Your task to perform on an android device: delete location history Image 0: 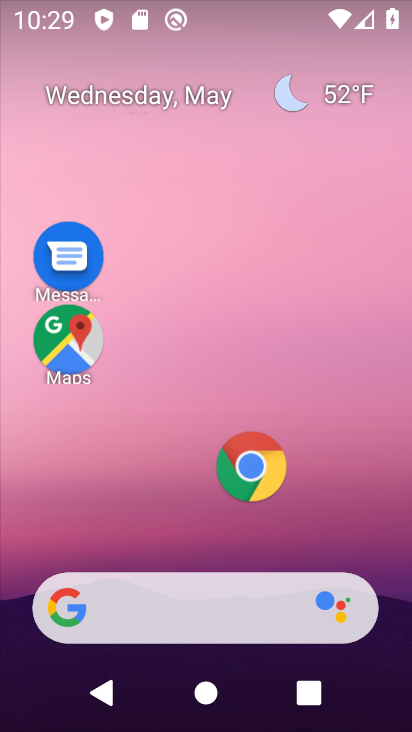
Step 0: drag from (215, 533) to (209, 71)
Your task to perform on an android device: delete location history Image 1: 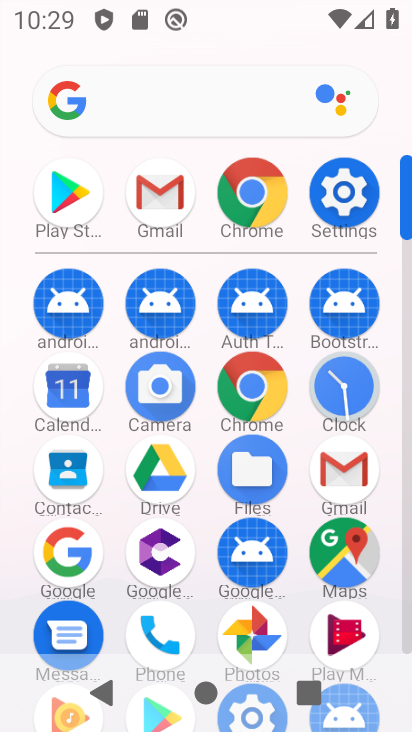
Step 1: click (334, 191)
Your task to perform on an android device: delete location history Image 2: 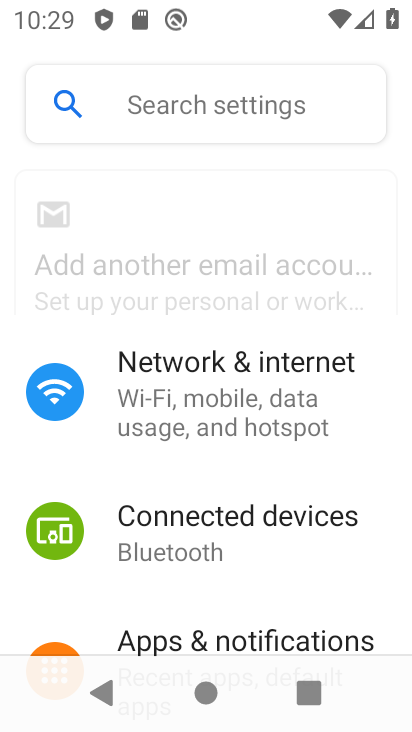
Step 2: drag from (269, 556) to (281, 20)
Your task to perform on an android device: delete location history Image 3: 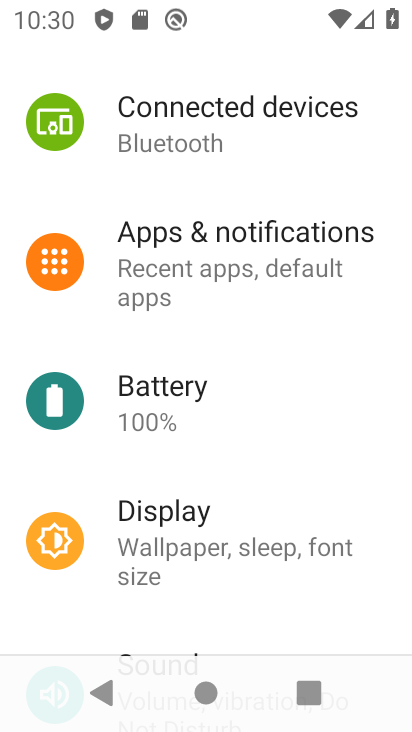
Step 3: drag from (232, 559) to (208, 34)
Your task to perform on an android device: delete location history Image 4: 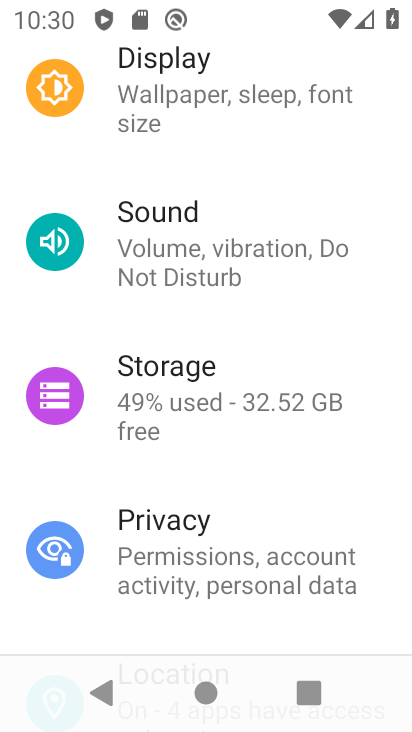
Step 4: drag from (225, 578) to (197, 294)
Your task to perform on an android device: delete location history Image 5: 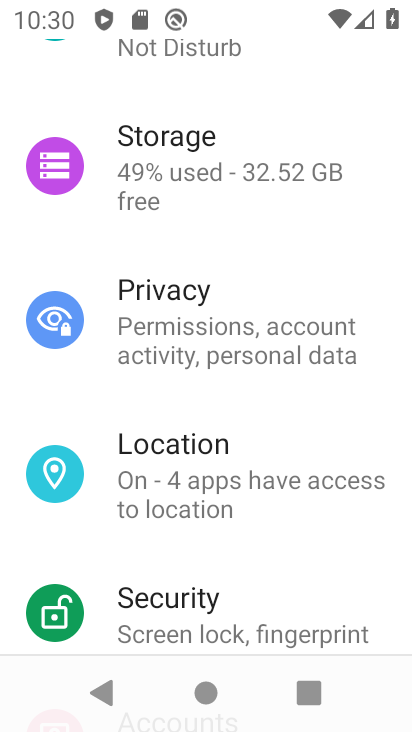
Step 5: click (189, 483)
Your task to perform on an android device: delete location history Image 6: 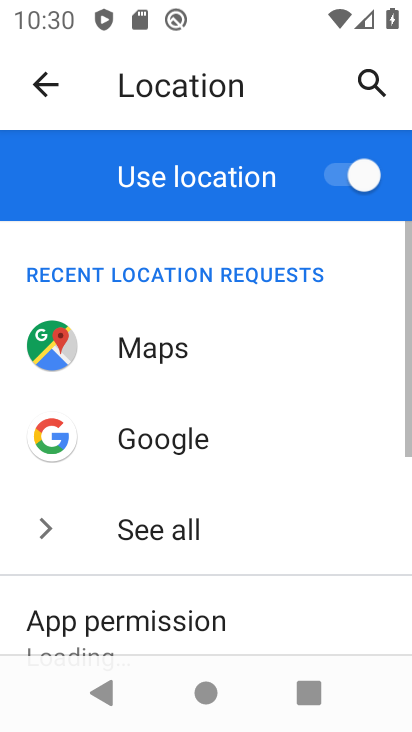
Step 6: drag from (275, 585) to (327, 61)
Your task to perform on an android device: delete location history Image 7: 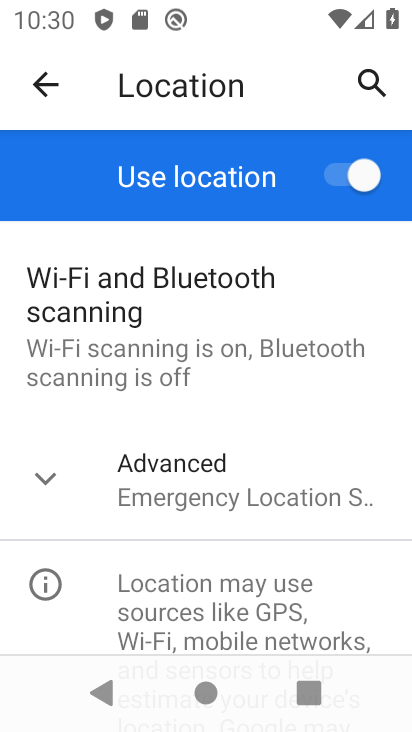
Step 7: click (180, 500)
Your task to perform on an android device: delete location history Image 8: 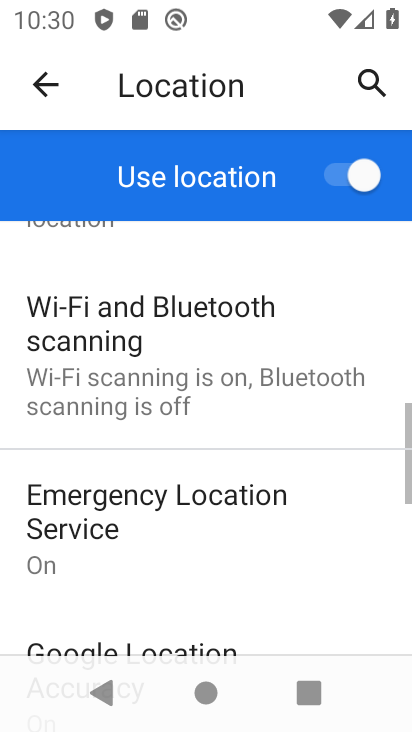
Step 8: drag from (186, 544) to (197, 23)
Your task to perform on an android device: delete location history Image 9: 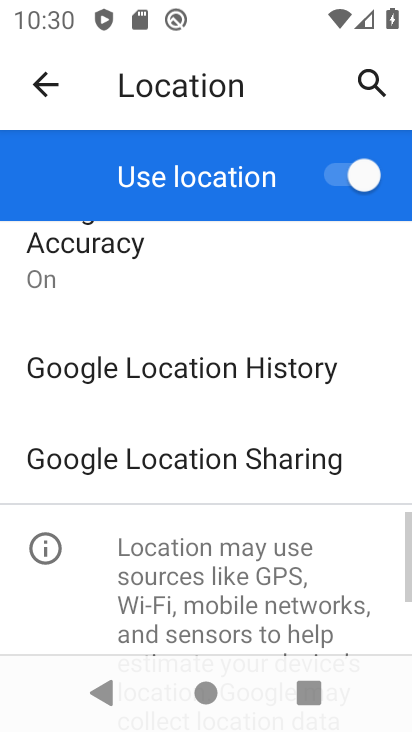
Step 9: drag from (240, 577) to (211, 312)
Your task to perform on an android device: delete location history Image 10: 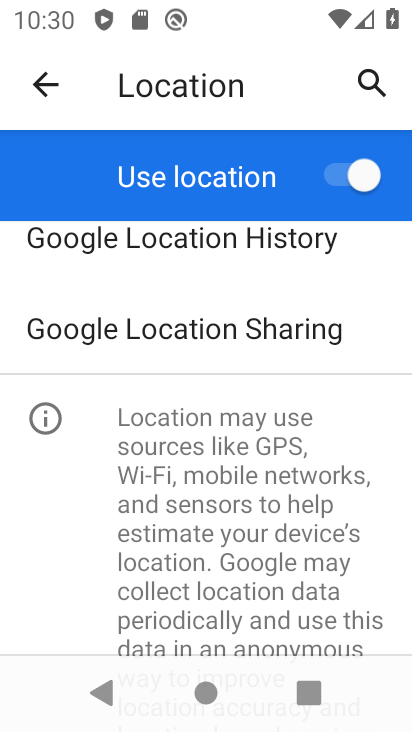
Step 10: click (131, 252)
Your task to perform on an android device: delete location history Image 11: 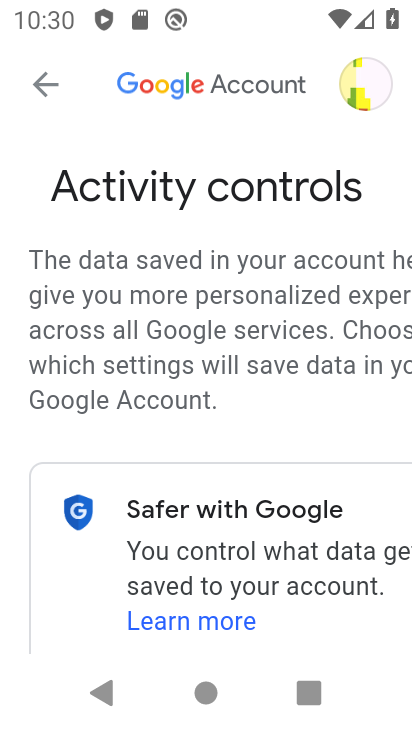
Step 11: drag from (135, 517) to (204, 83)
Your task to perform on an android device: delete location history Image 12: 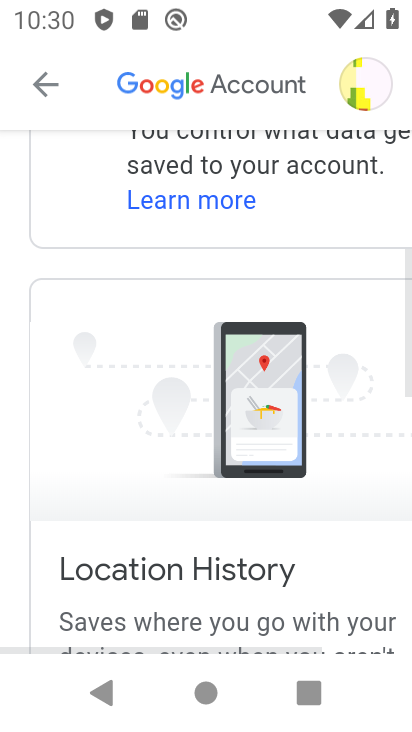
Step 12: drag from (149, 591) to (189, 46)
Your task to perform on an android device: delete location history Image 13: 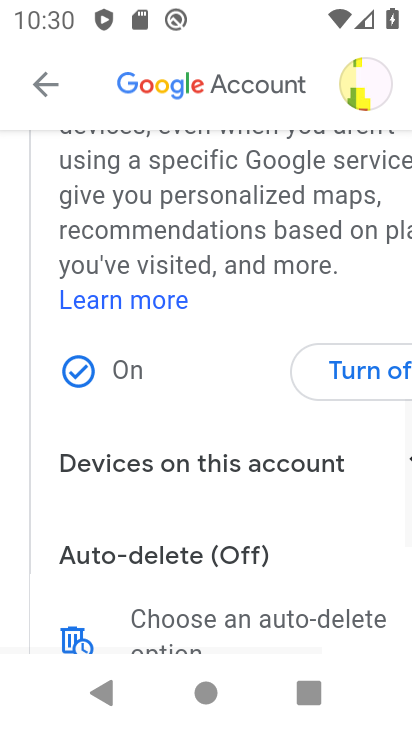
Step 13: drag from (113, 603) to (140, 344)
Your task to perform on an android device: delete location history Image 14: 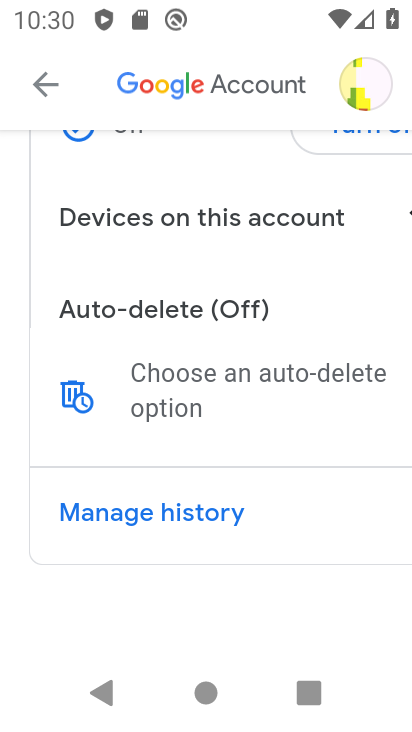
Step 14: click (69, 392)
Your task to perform on an android device: delete location history Image 15: 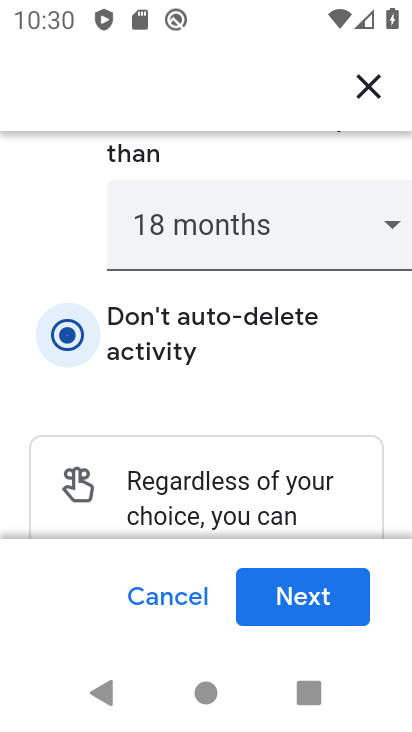
Step 15: click (295, 581)
Your task to perform on an android device: delete location history Image 16: 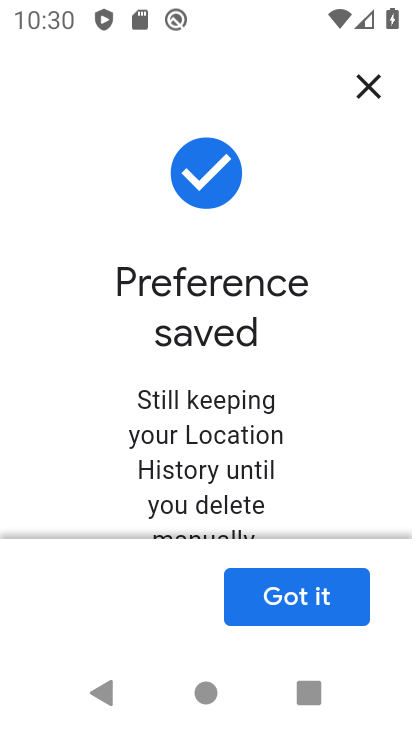
Step 16: click (287, 599)
Your task to perform on an android device: delete location history Image 17: 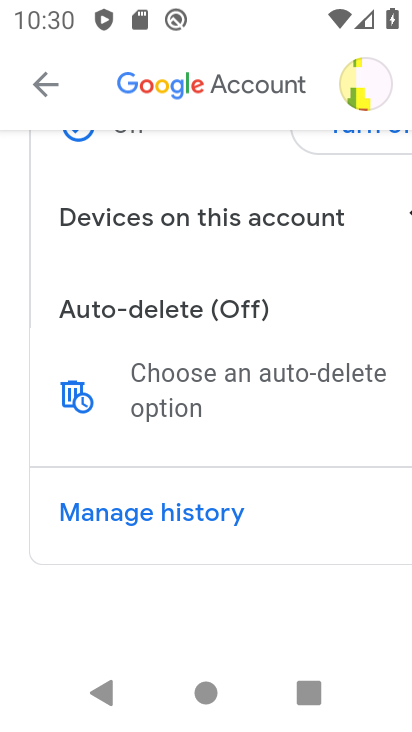
Step 17: task complete